Your task to perform on an android device: see creations saved in the google photos Image 0: 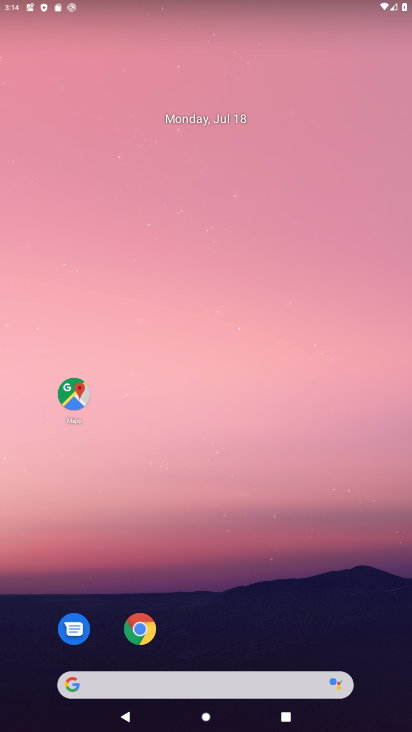
Step 0: drag from (221, 623) to (249, 163)
Your task to perform on an android device: see creations saved in the google photos Image 1: 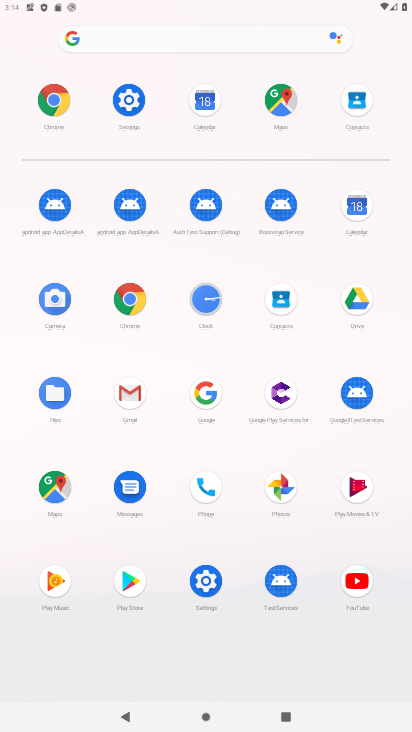
Step 1: click (268, 483)
Your task to perform on an android device: see creations saved in the google photos Image 2: 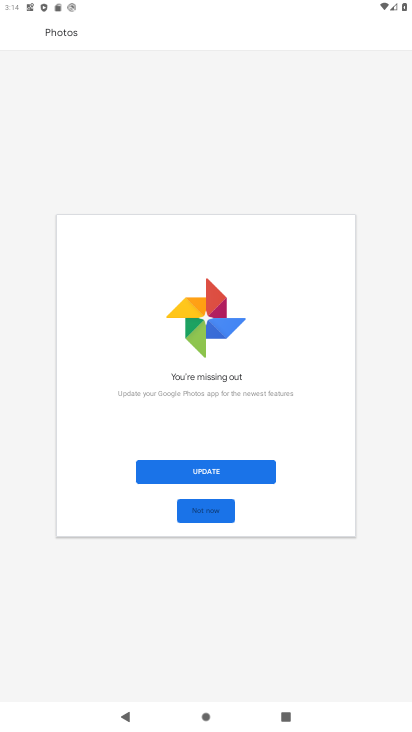
Step 2: click (206, 516)
Your task to perform on an android device: see creations saved in the google photos Image 3: 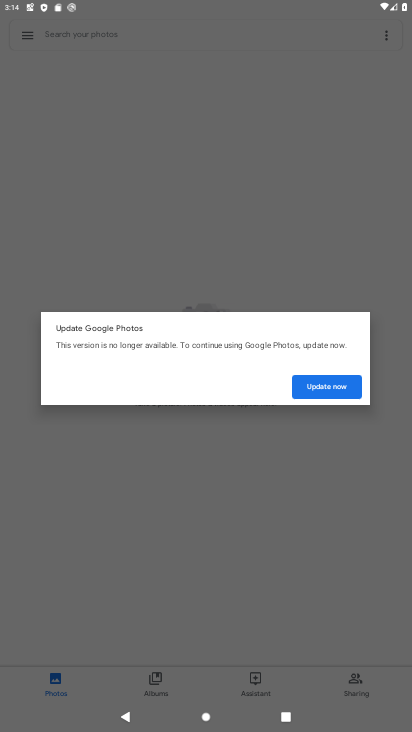
Step 3: click (333, 389)
Your task to perform on an android device: see creations saved in the google photos Image 4: 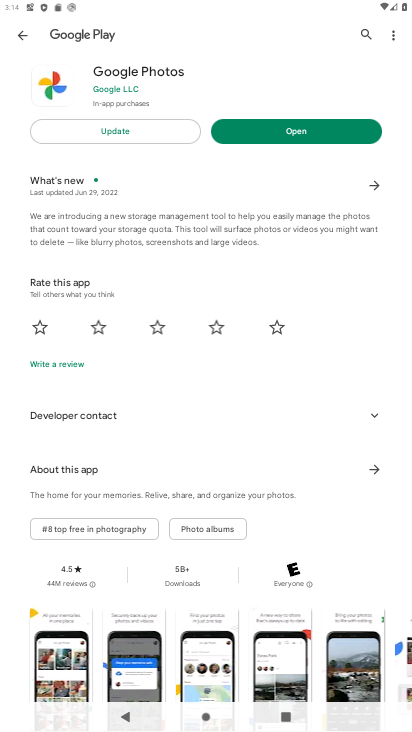
Step 4: click (270, 143)
Your task to perform on an android device: see creations saved in the google photos Image 5: 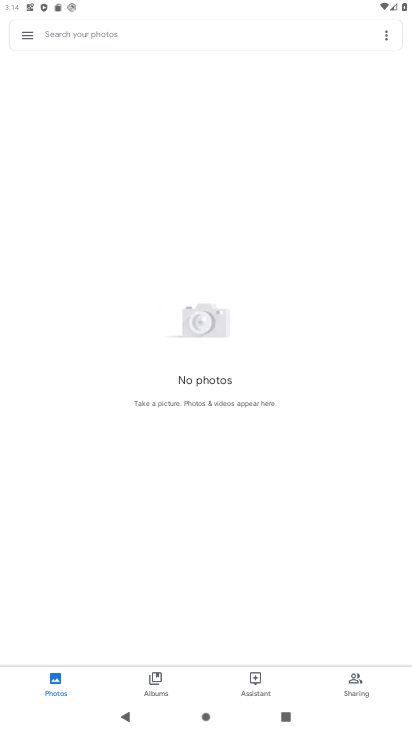
Step 5: click (98, 30)
Your task to perform on an android device: see creations saved in the google photos Image 6: 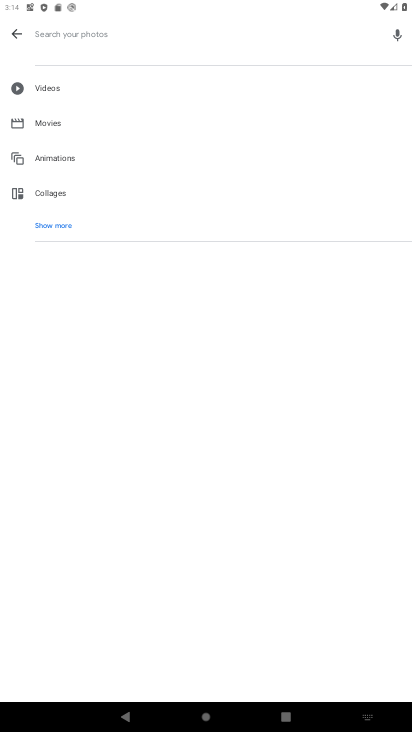
Step 6: click (75, 227)
Your task to perform on an android device: see creations saved in the google photos Image 7: 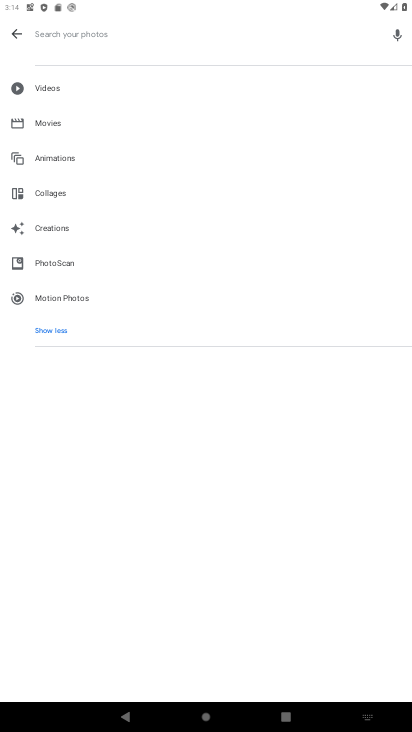
Step 7: click (75, 227)
Your task to perform on an android device: see creations saved in the google photos Image 8: 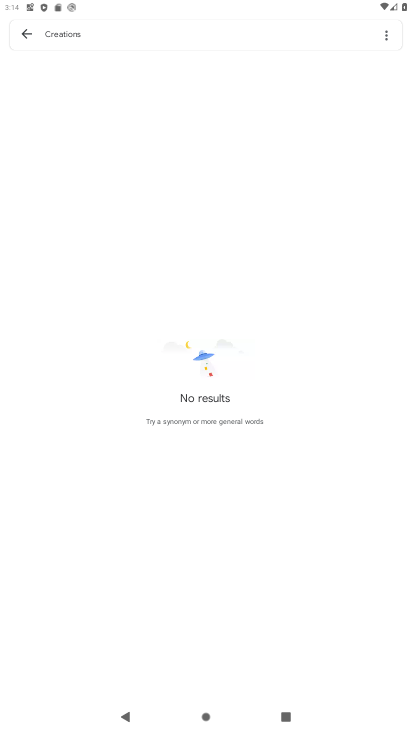
Step 8: task complete